Your task to perform on an android device: Open the calendar app, open the side menu, and click the "Day" option Image 0: 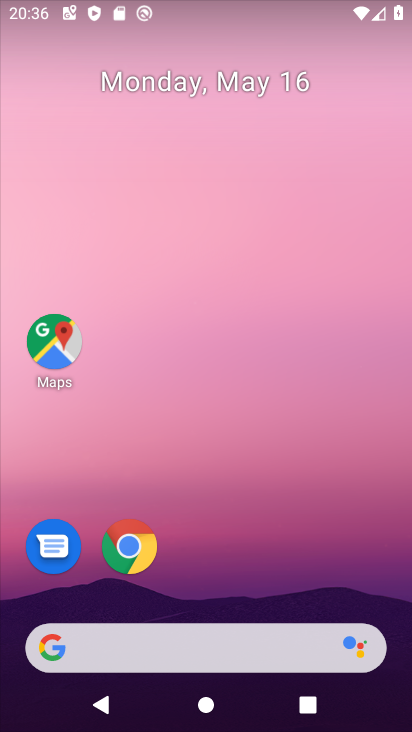
Step 0: drag from (263, 597) to (271, 173)
Your task to perform on an android device: Open the calendar app, open the side menu, and click the "Day" option Image 1: 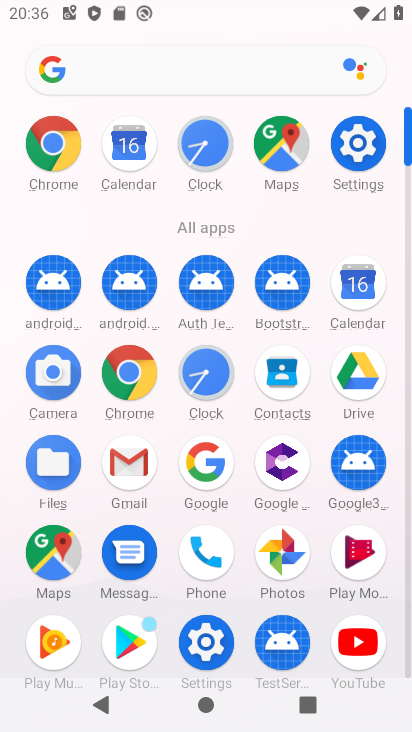
Step 1: click (358, 300)
Your task to perform on an android device: Open the calendar app, open the side menu, and click the "Day" option Image 2: 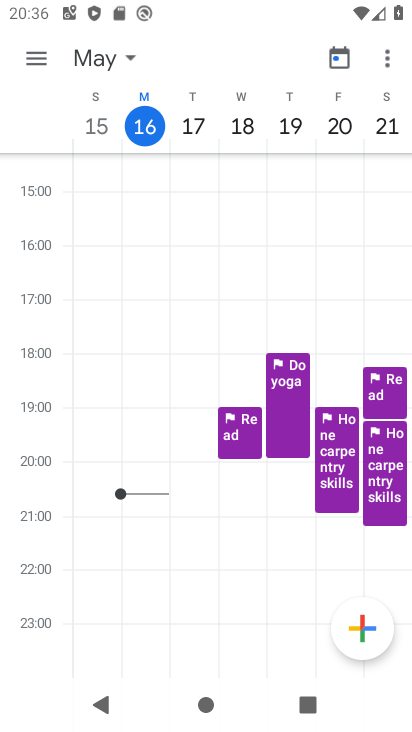
Step 2: click (34, 51)
Your task to perform on an android device: Open the calendar app, open the side menu, and click the "Day" option Image 3: 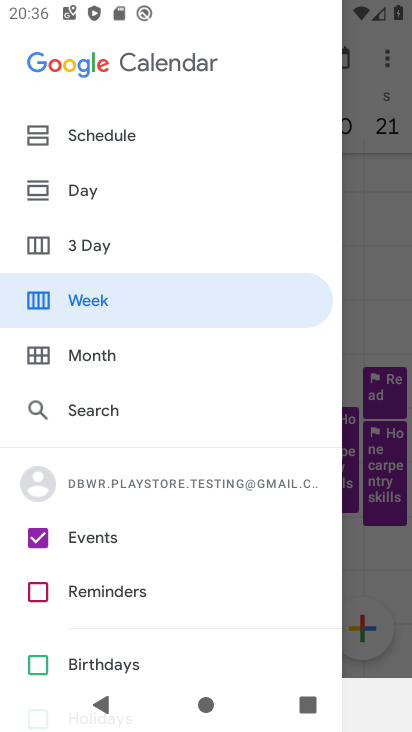
Step 3: click (107, 185)
Your task to perform on an android device: Open the calendar app, open the side menu, and click the "Day" option Image 4: 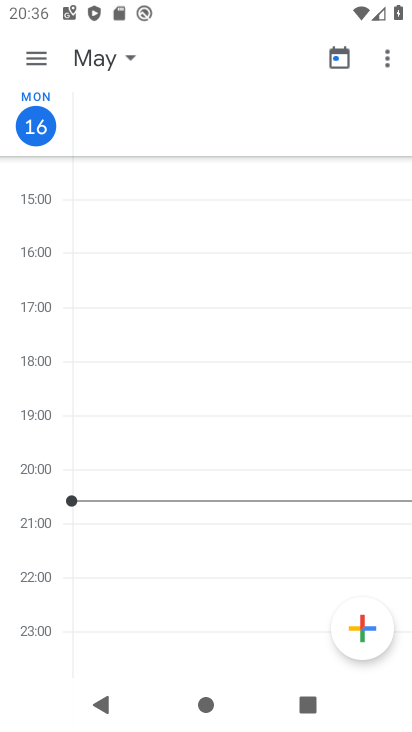
Step 4: task complete